Your task to perform on an android device: add a contact Image 0: 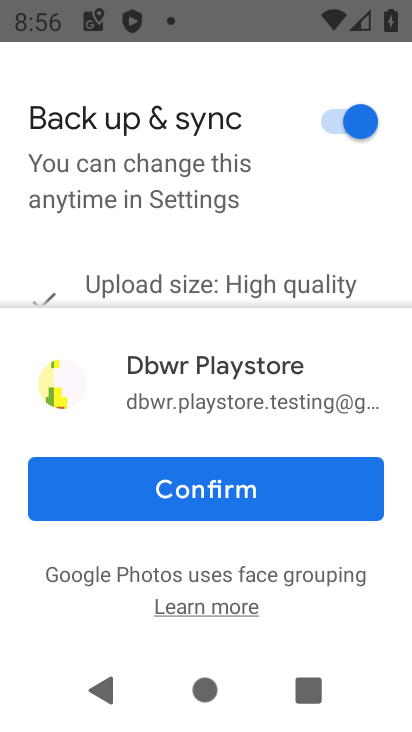
Step 0: press home button
Your task to perform on an android device: add a contact Image 1: 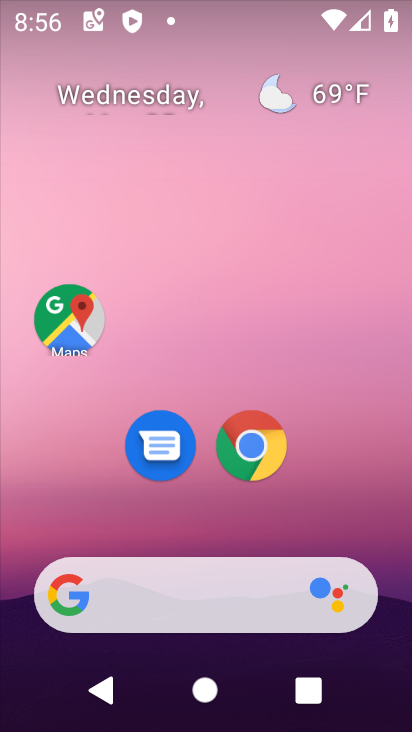
Step 1: drag from (319, 527) to (338, 245)
Your task to perform on an android device: add a contact Image 2: 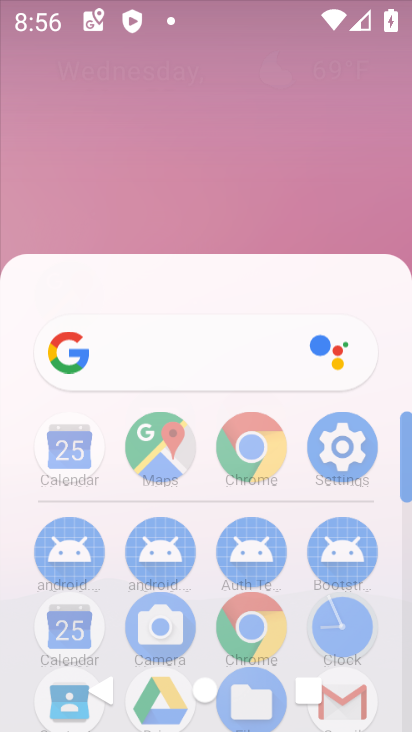
Step 2: click (350, 139)
Your task to perform on an android device: add a contact Image 3: 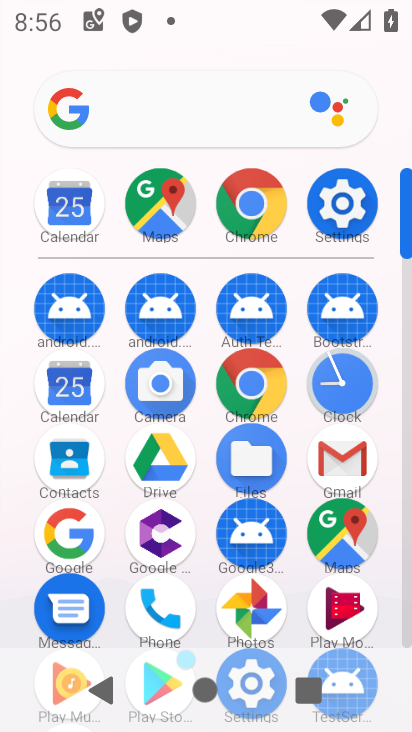
Step 3: click (70, 460)
Your task to perform on an android device: add a contact Image 4: 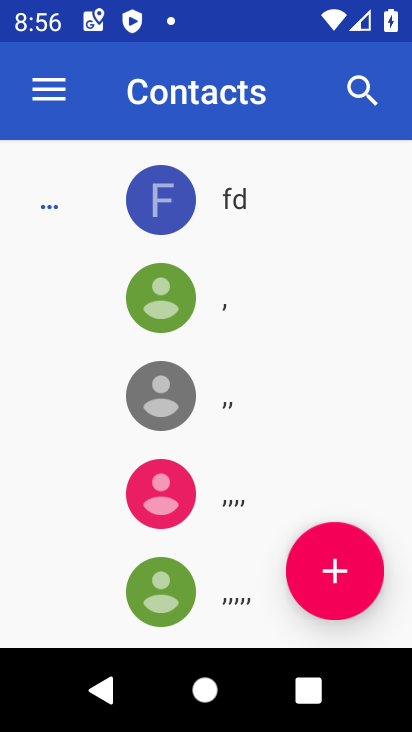
Step 4: click (337, 574)
Your task to perform on an android device: add a contact Image 5: 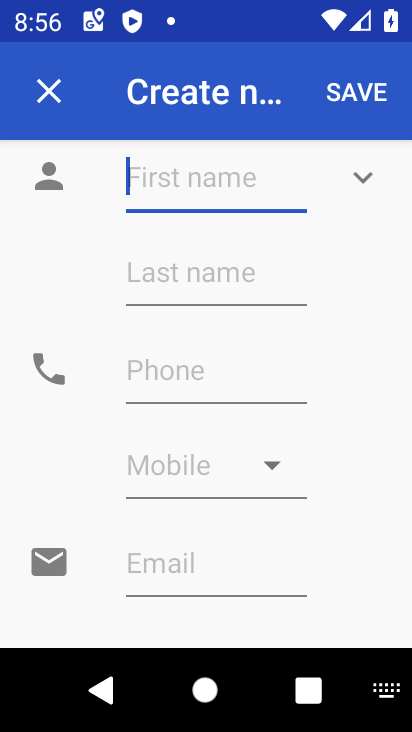
Step 5: type "nsre"
Your task to perform on an android device: add a contact Image 6: 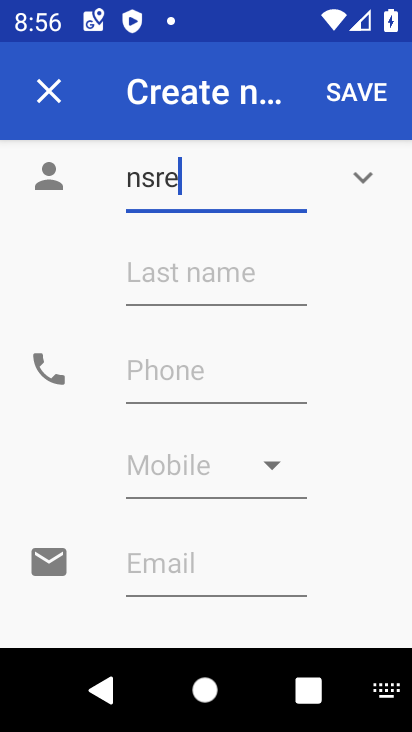
Step 6: click (235, 365)
Your task to perform on an android device: add a contact Image 7: 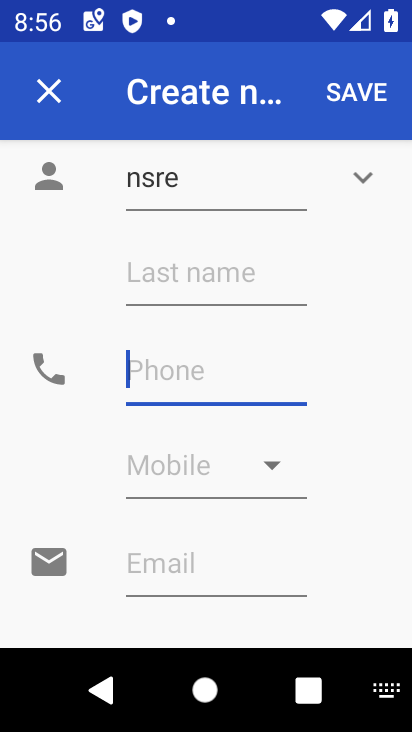
Step 7: type "12765"
Your task to perform on an android device: add a contact Image 8: 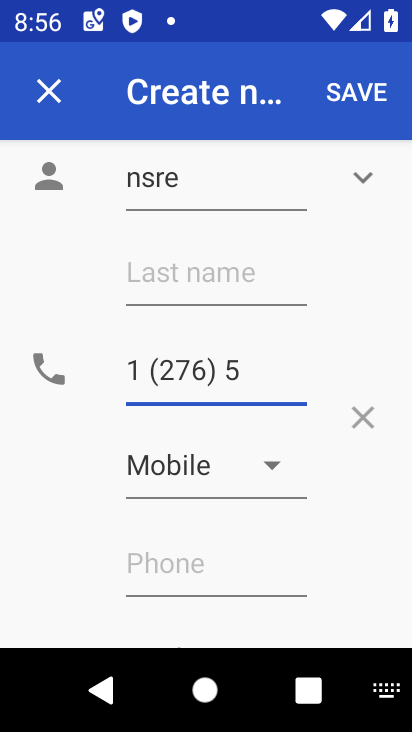
Step 8: click (343, 93)
Your task to perform on an android device: add a contact Image 9: 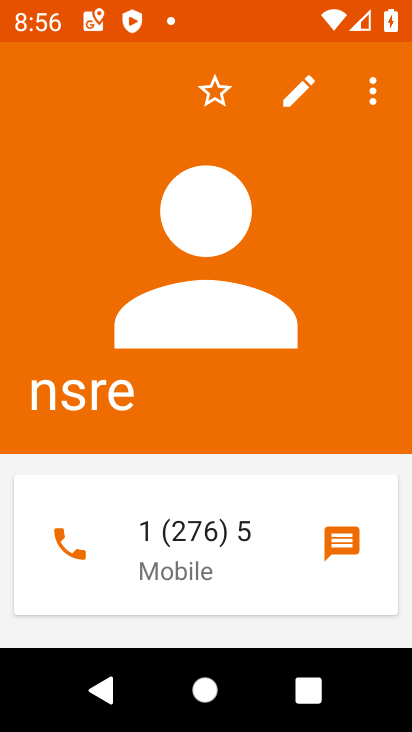
Step 9: task complete